Your task to perform on an android device: find photos in the google photos app Image 0: 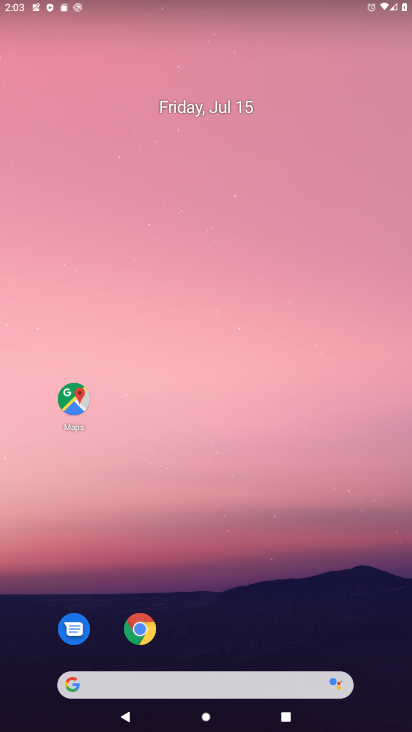
Step 0: drag from (279, 405) to (260, 48)
Your task to perform on an android device: find photos in the google photos app Image 1: 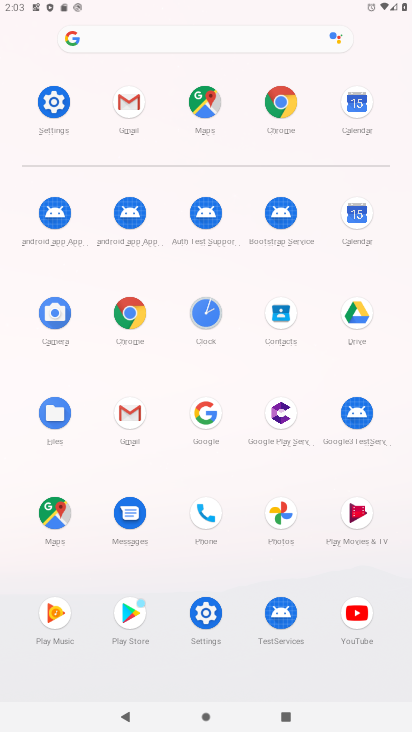
Step 1: click (286, 516)
Your task to perform on an android device: find photos in the google photos app Image 2: 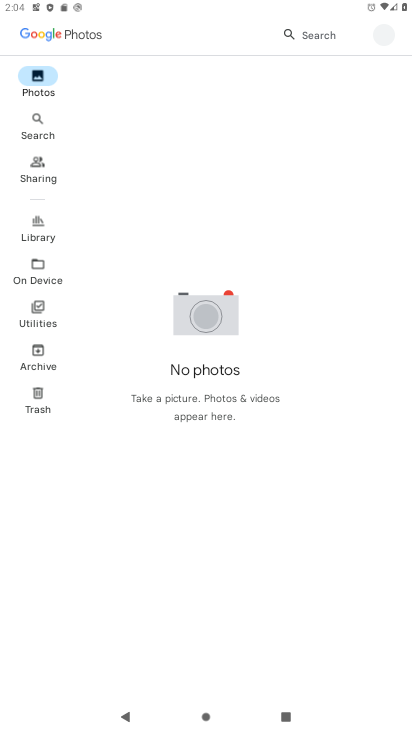
Step 2: task complete